Your task to perform on an android device: open app "Adobe Acrobat Reader" (install if not already installed), go to login, and select forgot password Image 0: 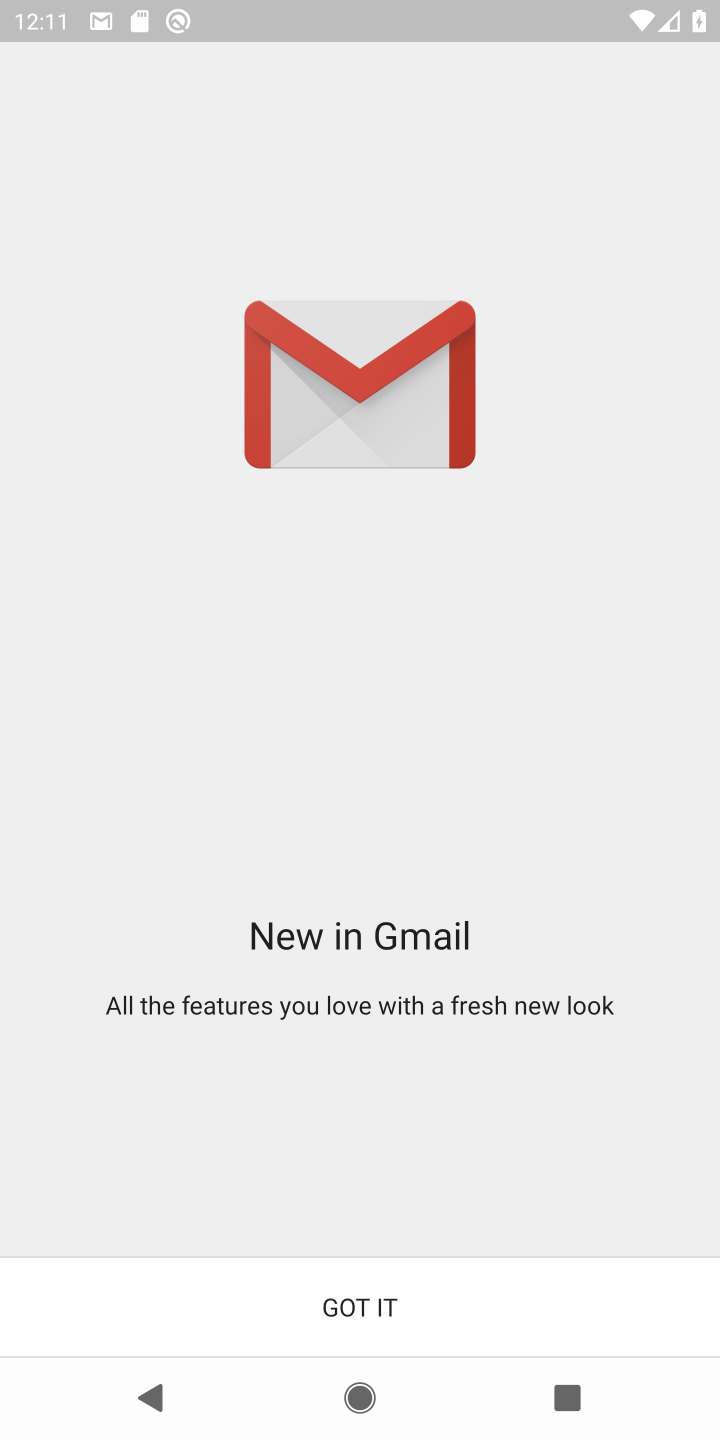
Step 0: press home button
Your task to perform on an android device: open app "Adobe Acrobat Reader" (install if not already installed), go to login, and select forgot password Image 1: 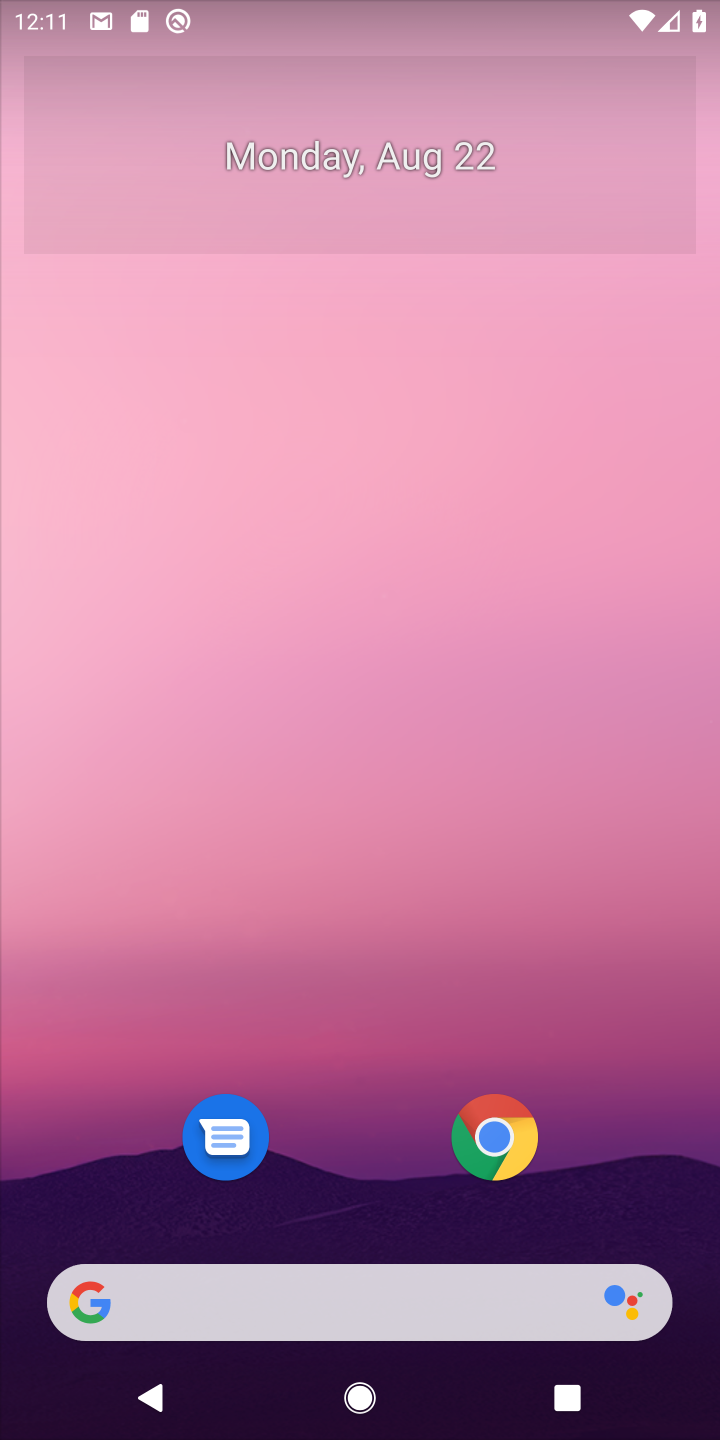
Step 1: drag from (670, 1210) to (587, 59)
Your task to perform on an android device: open app "Adobe Acrobat Reader" (install if not already installed), go to login, and select forgot password Image 2: 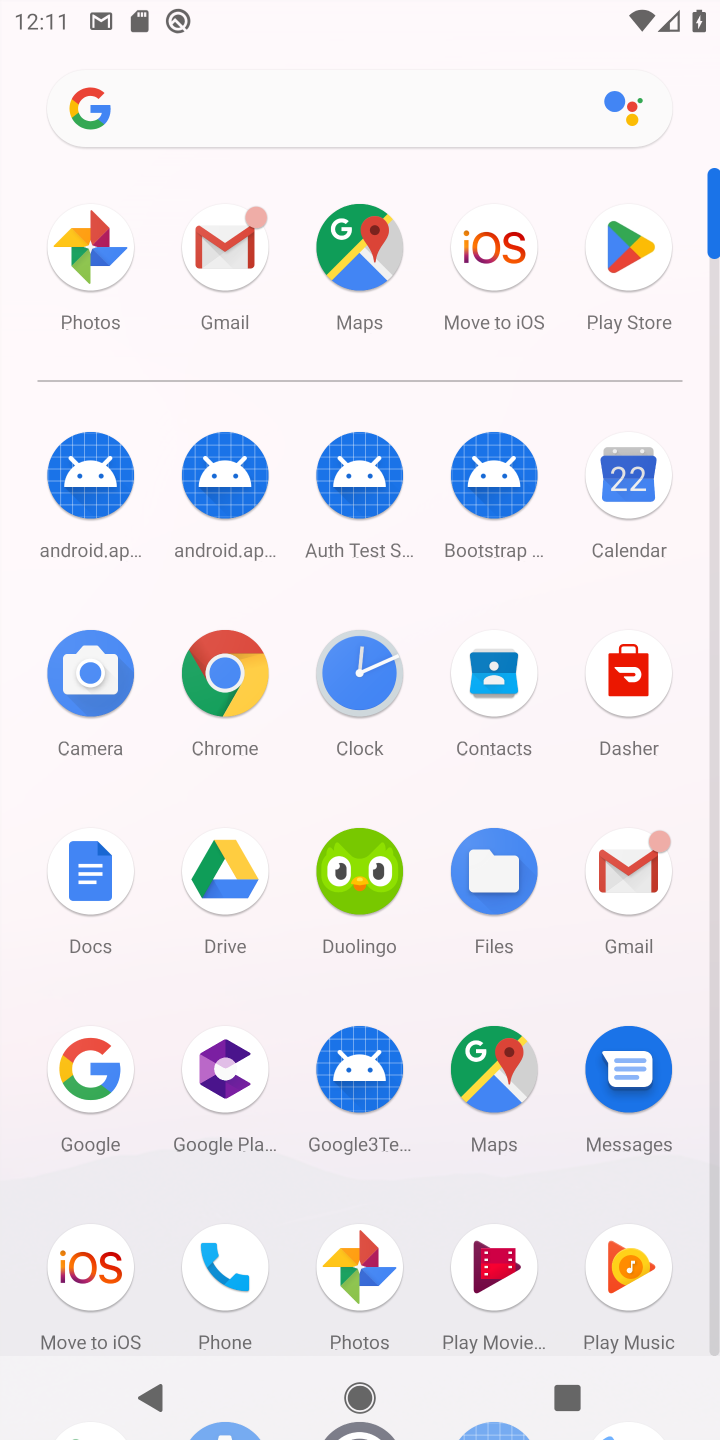
Step 2: drag from (569, 1192) to (524, 474)
Your task to perform on an android device: open app "Adobe Acrobat Reader" (install if not already installed), go to login, and select forgot password Image 3: 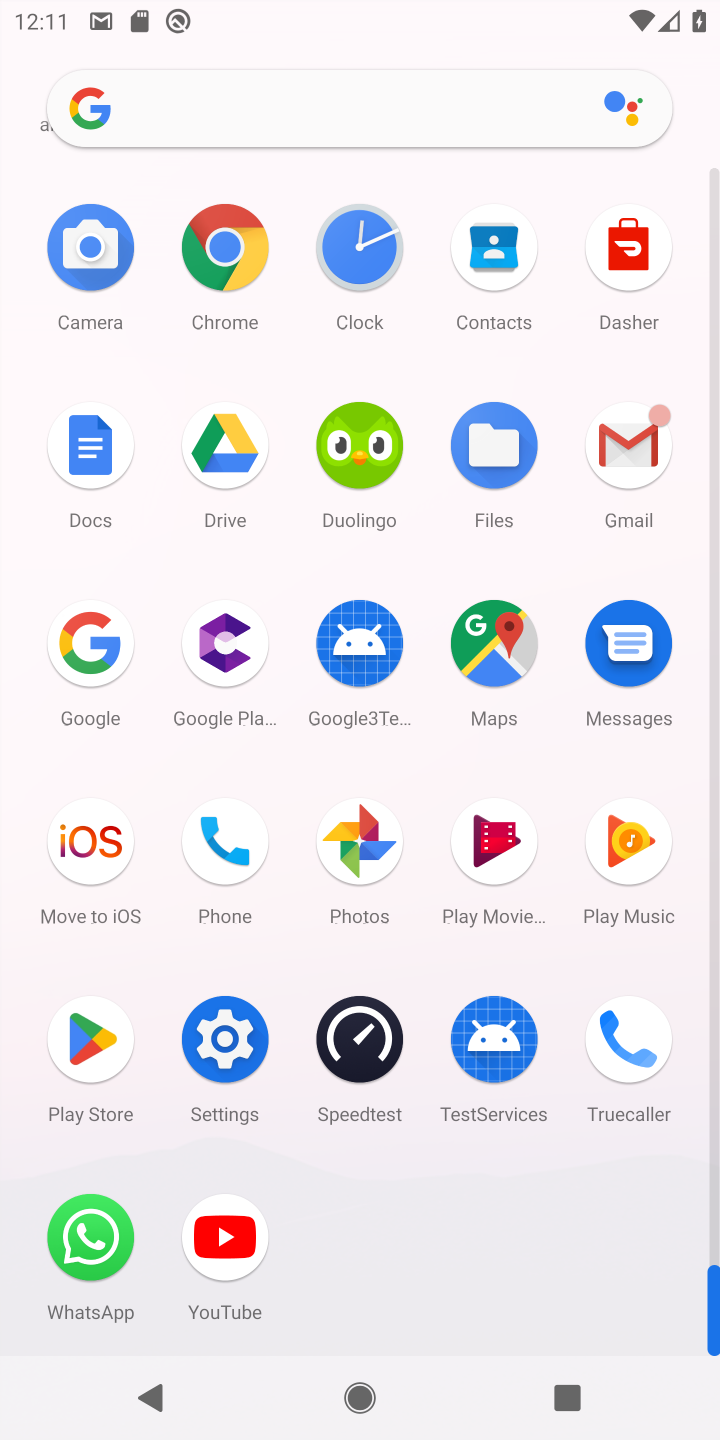
Step 3: click (86, 1040)
Your task to perform on an android device: open app "Adobe Acrobat Reader" (install if not already installed), go to login, and select forgot password Image 4: 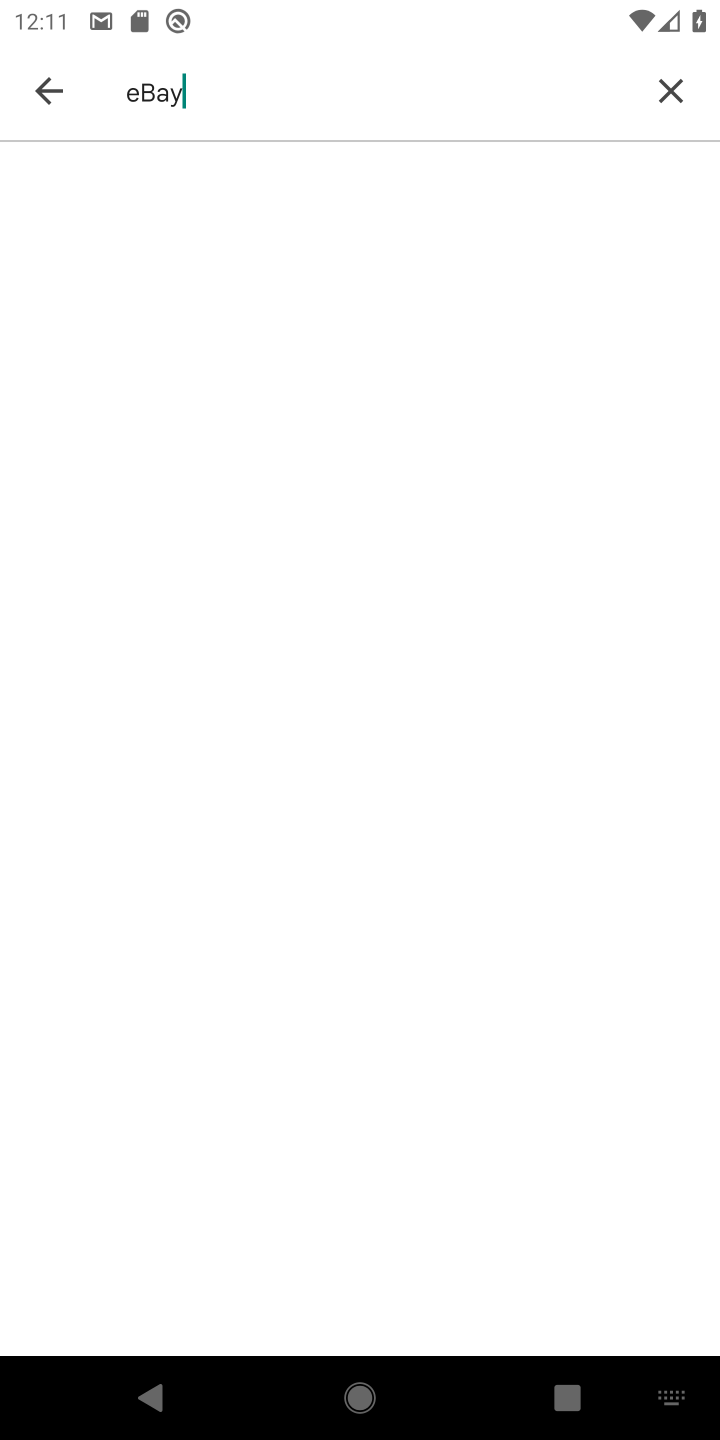
Step 4: click (673, 89)
Your task to perform on an android device: open app "Adobe Acrobat Reader" (install if not already installed), go to login, and select forgot password Image 5: 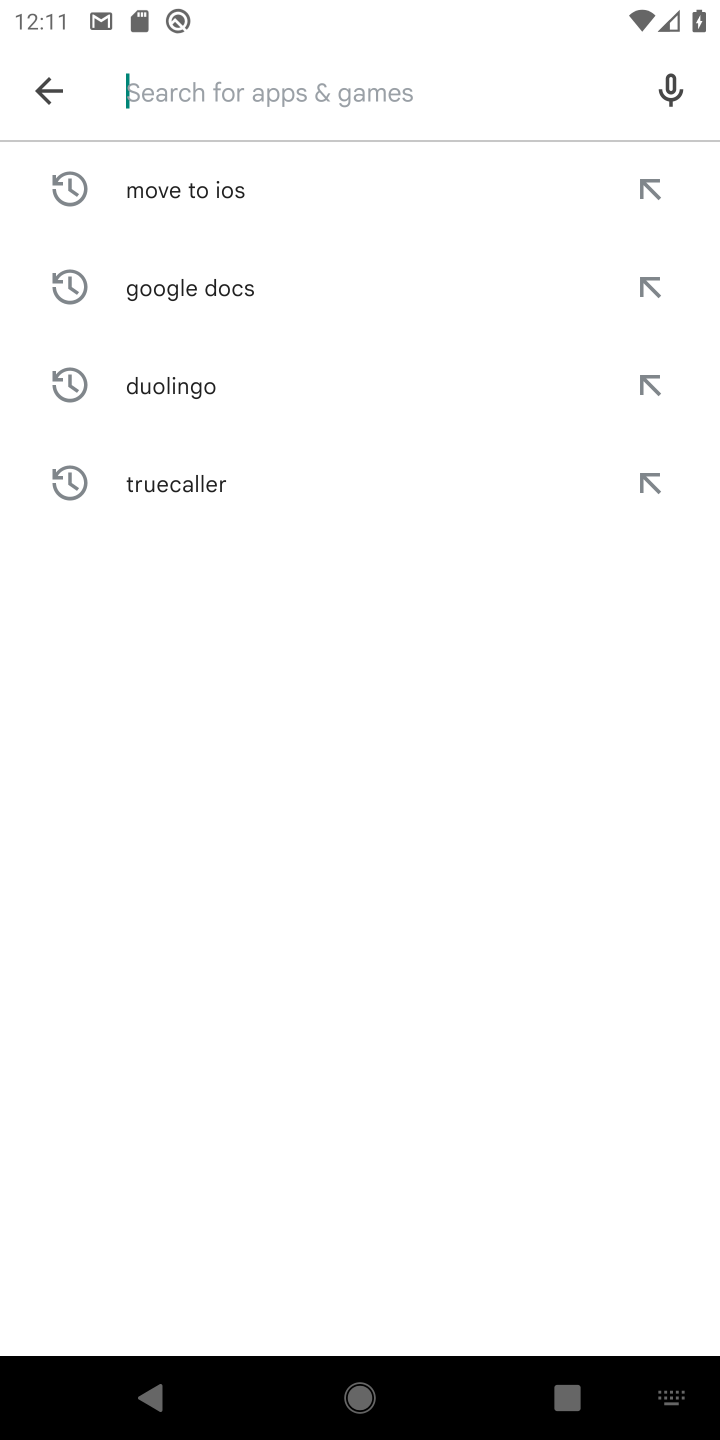
Step 5: type "Adobe Acrobat Reader"
Your task to perform on an android device: open app "Adobe Acrobat Reader" (install if not already installed), go to login, and select forgot password Image 6: 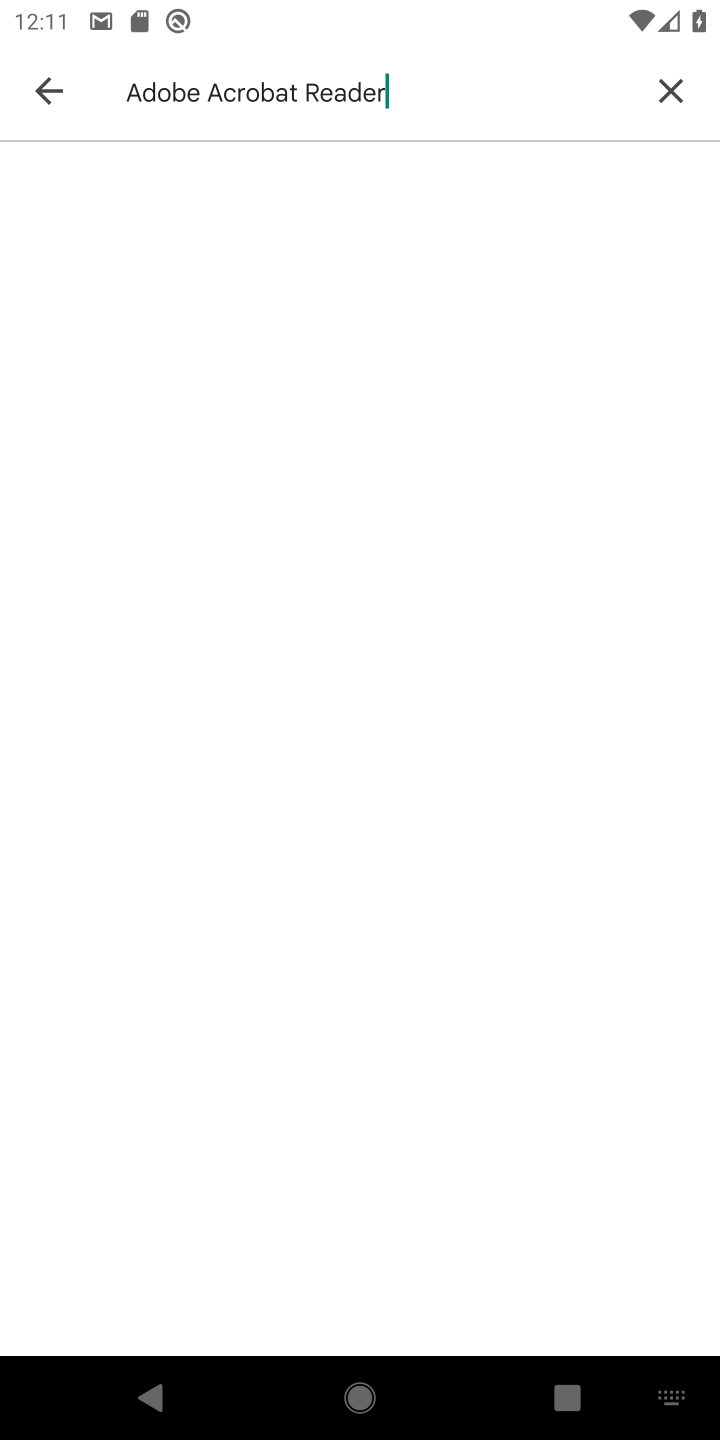
Step 6: task complete